Your task to perform on an android device: toggle notification dots Image 0: 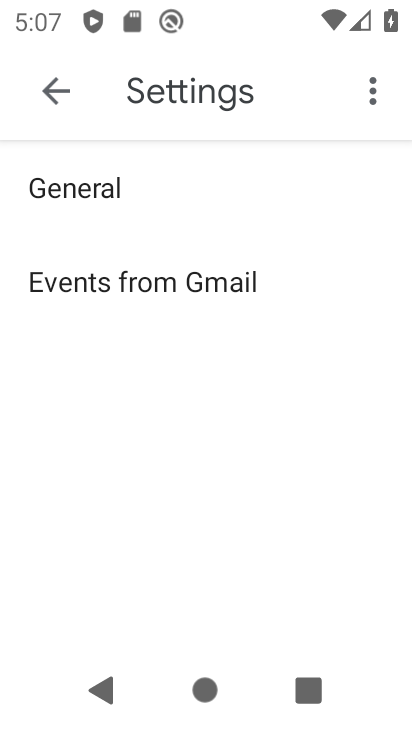
Step 0: press home button
Your task to perform on an android device: toggle notification dots Image 1: 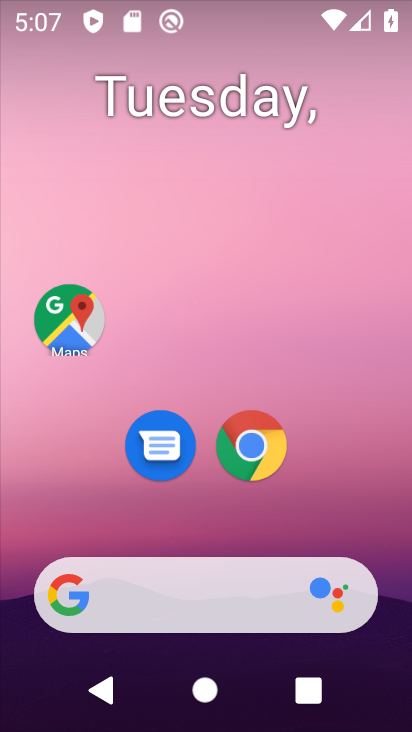
Step 1: drag from (328, 519) to (330, 63)
Your task to perform on an android device: toggle notification dots Image 2: 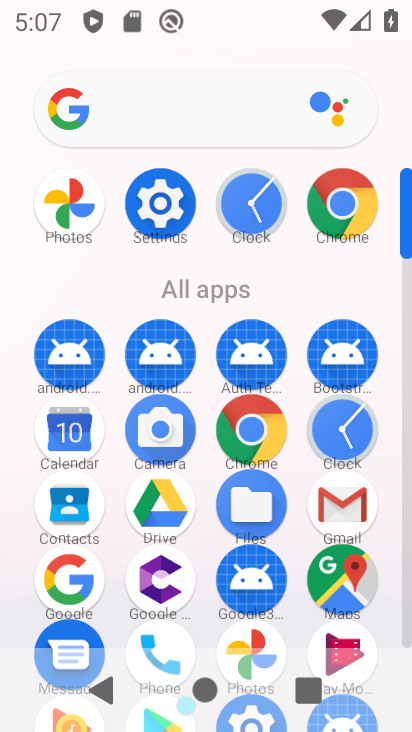
Step 2: click (147, 202)
Your task to perform on an android device: toggle notification dots Image 3: 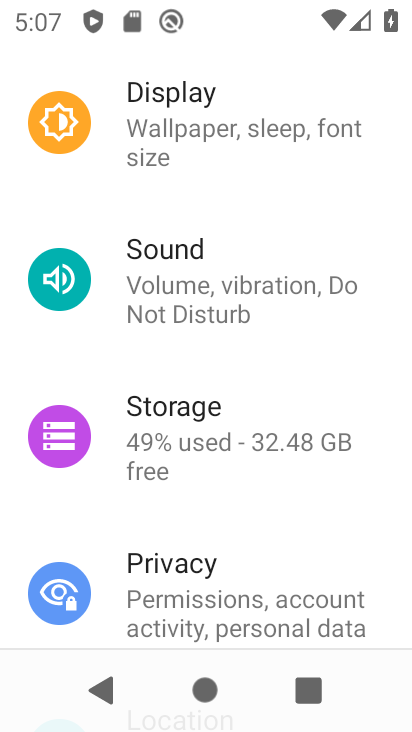
Step 3: drag from (275, 577) to (302, 259)
Your task to perform on an android device: toggle notification dots Image 4: 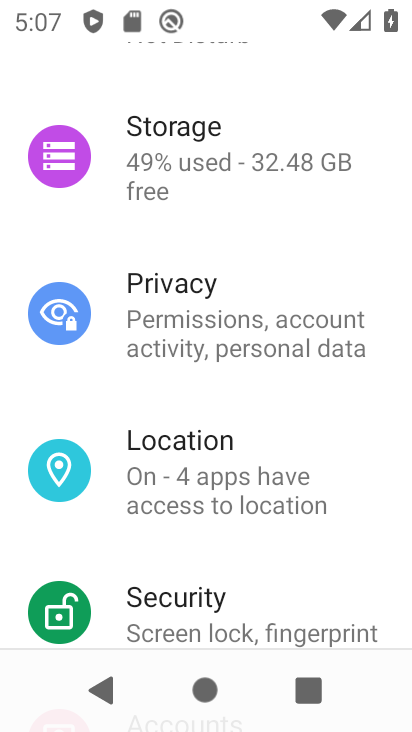
Step 4: drag from (262, 578) to (233, 684)
Your task to perform on an android device: toggle notification dots Image 5: 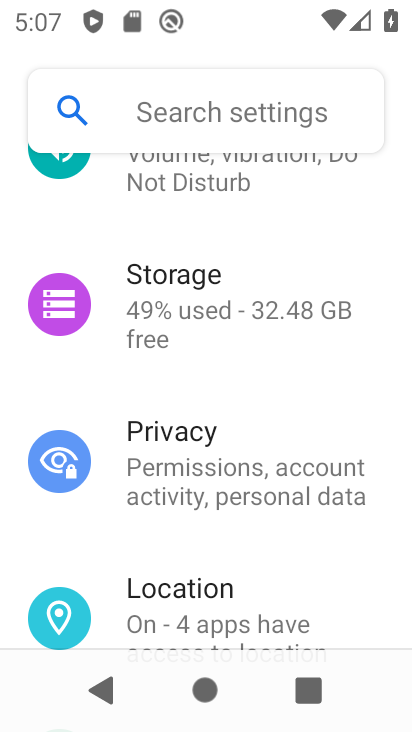
Step 5: drag from (342, 201) to (272, 599)
Your task to perform on an android device: toggle notification dots Image 6: 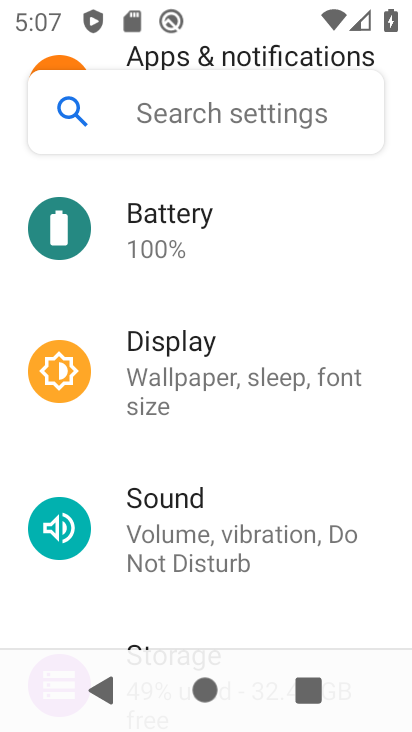
Step 6: drag from (319, 241) to (266, 665)
Your task to perform on an android device: toggle notification dots Image 7: 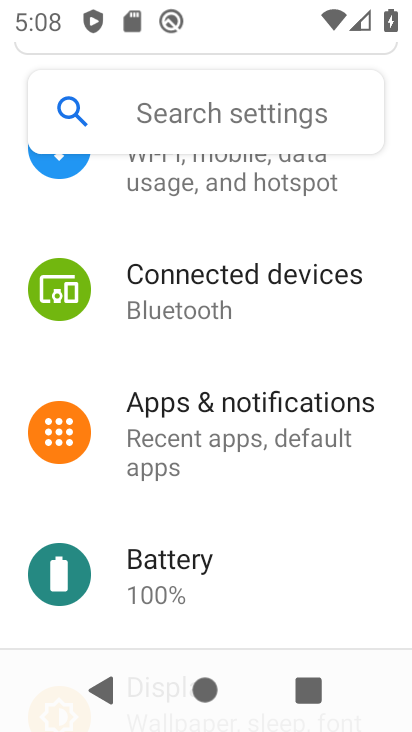
Step 7: click (247, 403)
Your task to perform on an android device: toggle notification dots Image 8: 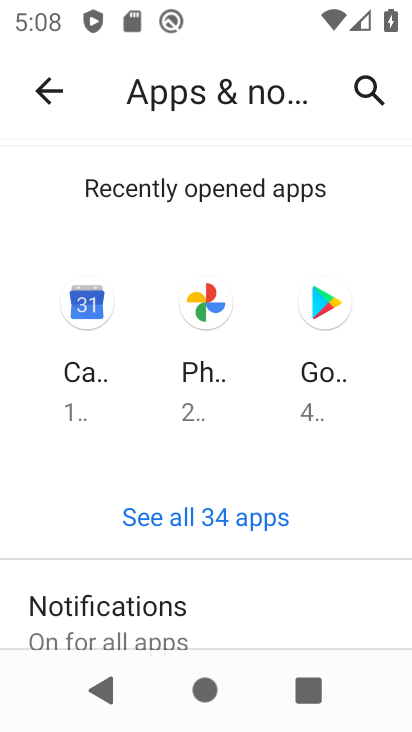
Step 8: drag from (271, 601) to (299, 323)
Your task to perform on an android device: toggle notification dots Image 9: 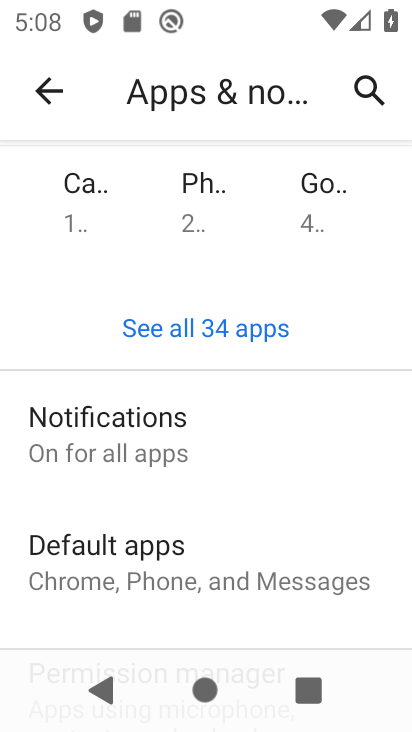
Step 9: click (150, 427)
Your task to perform on an android device: toggle notification dots Image 10: 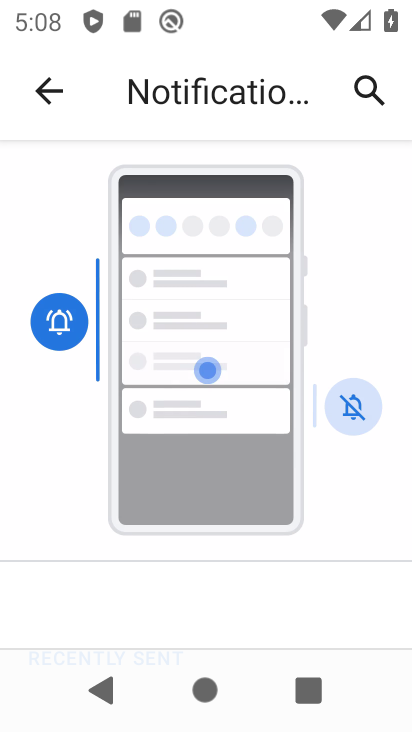
Step 10: drag from (332, 584) to (341, 257)
Your task to perform on an android device: toggle notification dots Image 11: 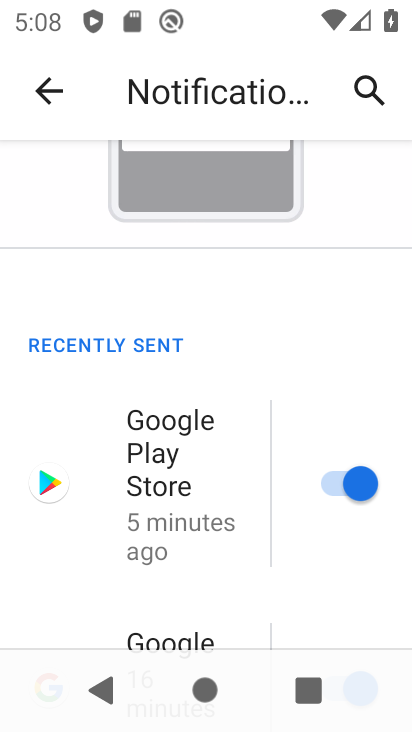
Step 11: drag from (282, 562) to (306, 305)
Your task to perform on an android device: toggle notification dots Image 12: 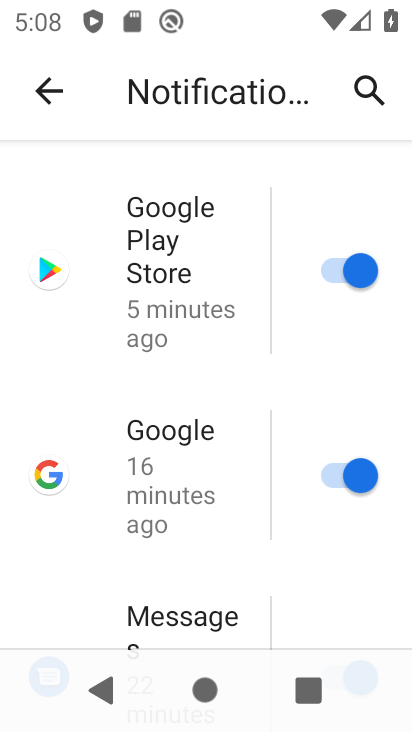
Step 12: drag from (283, 613) to (300, 295)
Your task to perform on an android device: toggle notification dots Image 13: 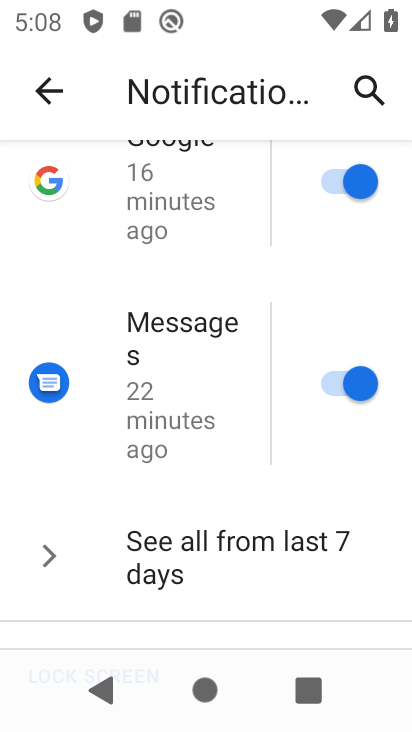
Step 13: drag from (281, 589) to (303, 353)
Your task to perform on an android device: toggle notification dots Image 14: 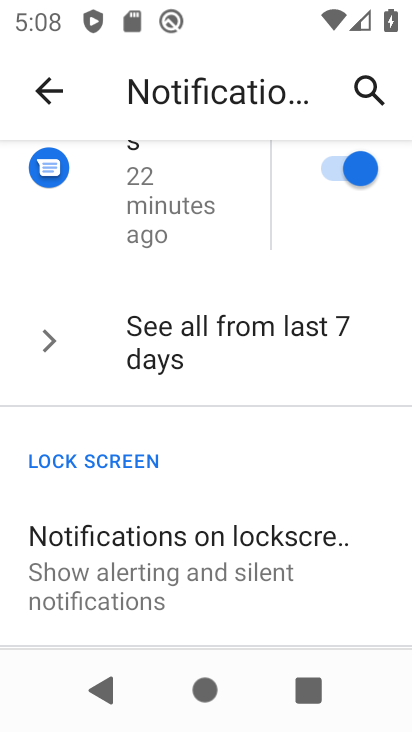
Step 14: drag from (316, 589) to (322, 396)
Your task to perform on an android device: toggle notification dots Image 15: 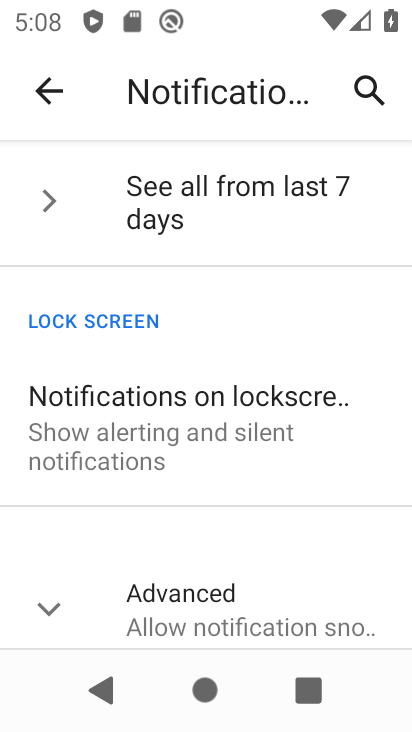
Step 15: drag from (290, 610) to (288, 359)
Your task to perform on an android device: toggle notification dots Image 16: 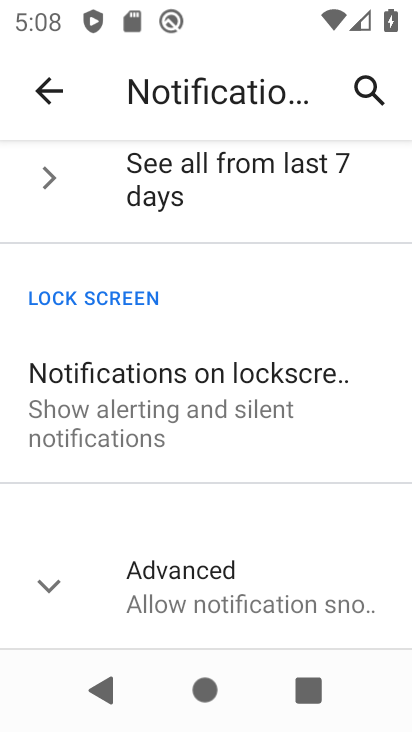
Step 16: click (265, 602)
Your task to perform on an android device: toggle notification dots Image 17: 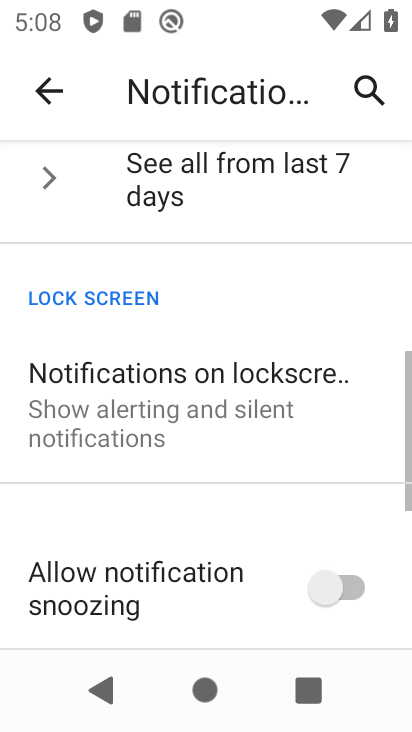
Step 17: drag from (284, 607) to (346, 159)
Your task to perform on an android device: toggle notification dots Image 18: 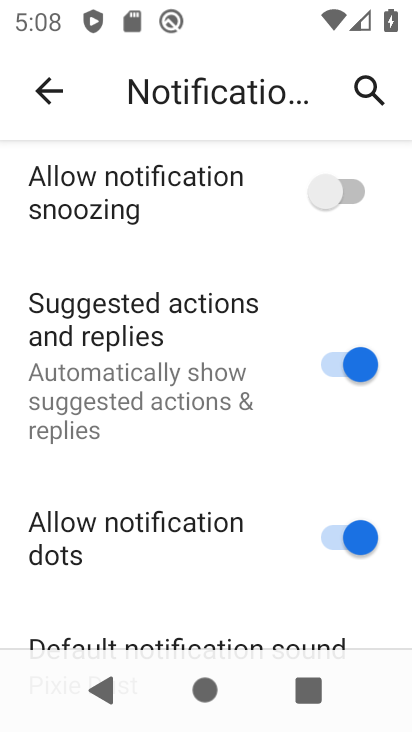
Step 18: click (353, 542)
Your task to perform on an android device: toggle notification dots Image 19: 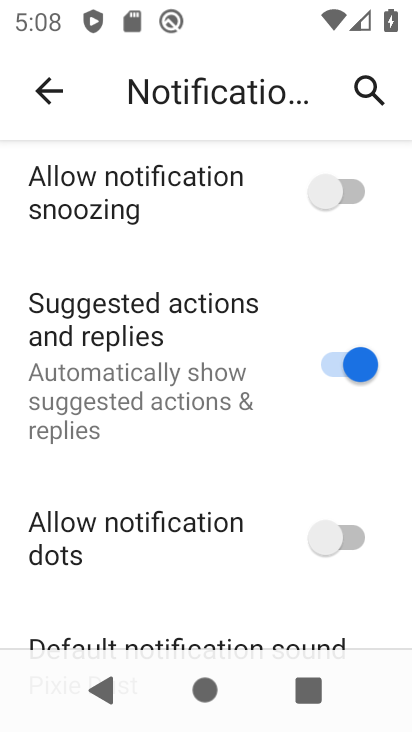
Step 19: task complete